Your task to perform on an android device: manage bookmarks in the chrome app Image 0: 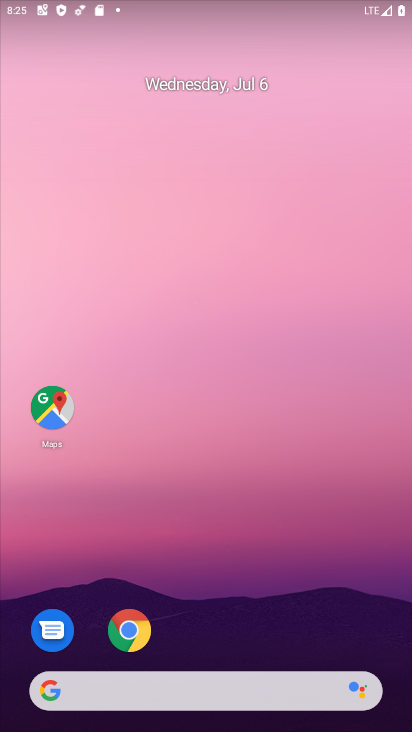
Step 0: click (124, 629)
Your task to perform on an android device: manage bookmarks in the chrome app Image 1: 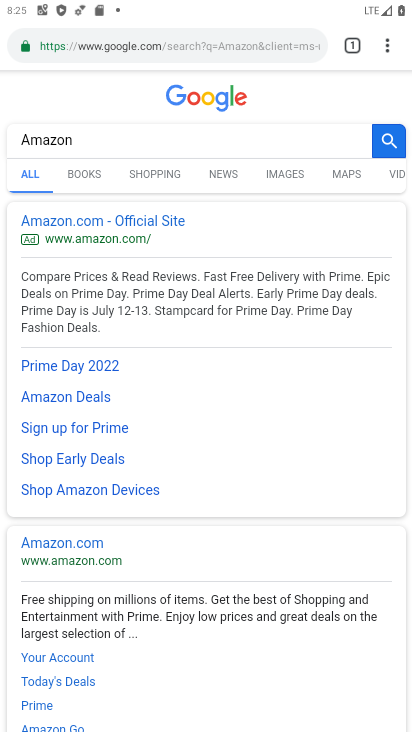
Step 1: click (383, 45)
Your task to perform on an android device: manage bookmarks in the chrome app Image 2: 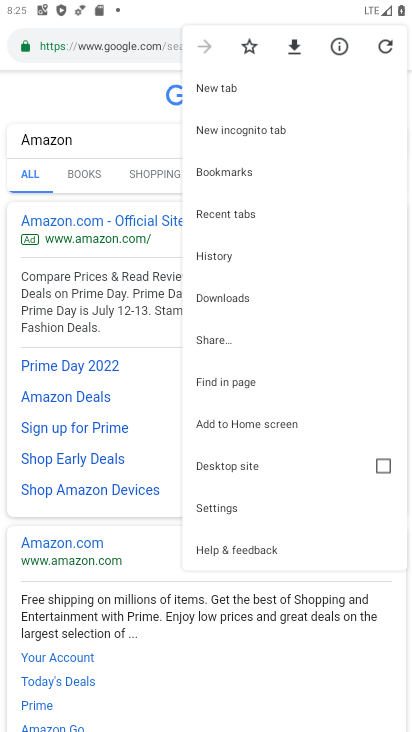
Step 2: click (218, 169)
Your task to perform on an android device: manage bookmarks in the chrome app Image 3: 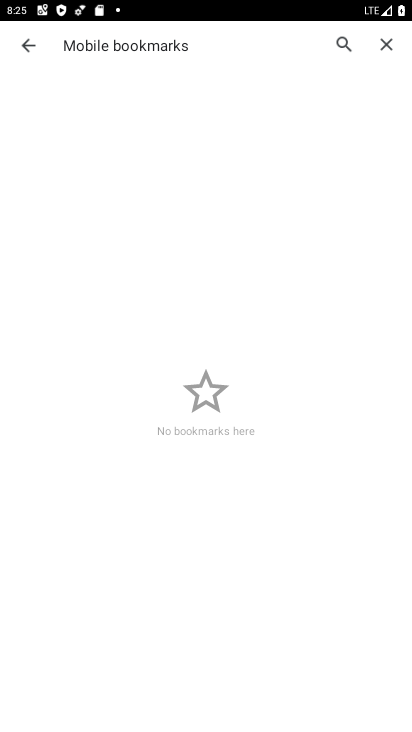
Step 3: task complete